Your task to perform on an android device: toggle location history Image 0: 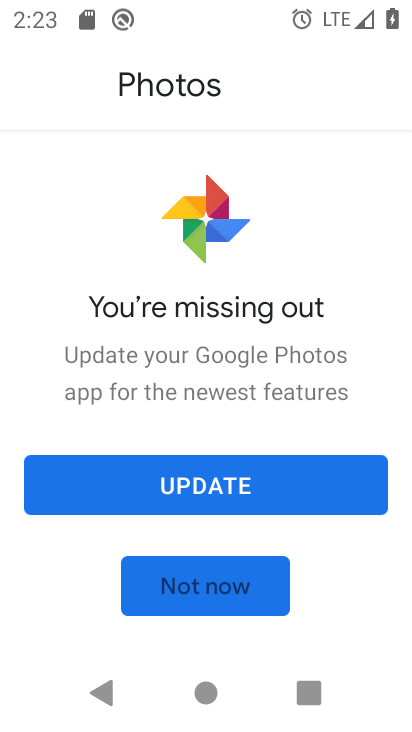
Step 0: click (241, 567)
Your task to perform on an android device: toggle location history Image 1: 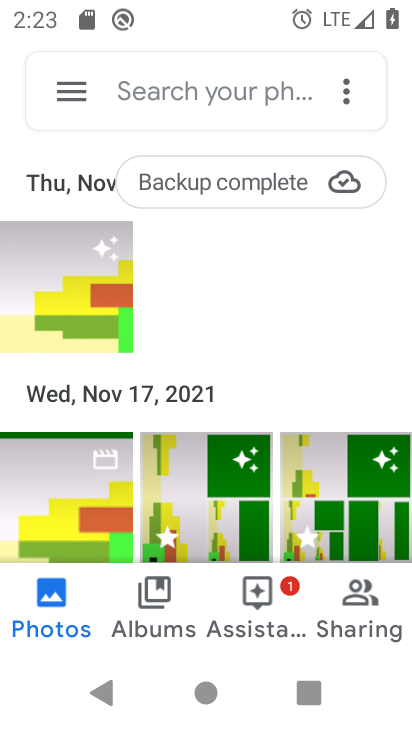
Step 1: press home button
Your task to perform on an android device: toggle location history Image 2: 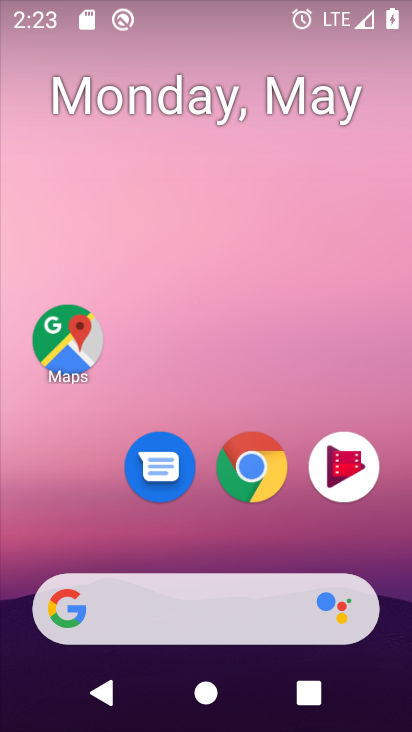
Step 2: drag from (183, 558) to (252, 178)
Your task to perform on an android device: toggle location history Image 3: 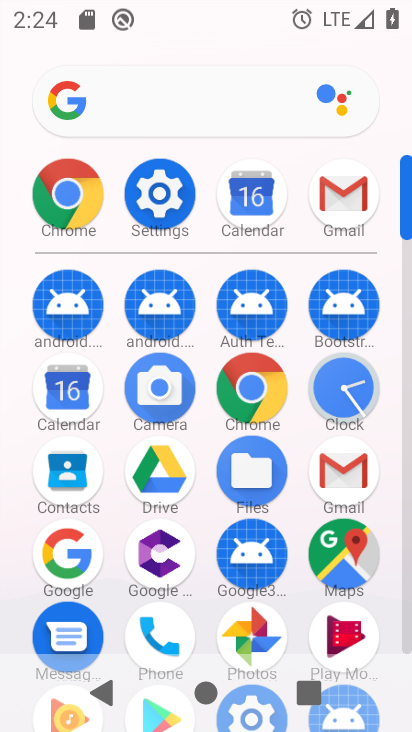
Step 3: click (158, 194)
Your task to perform on an android device: toggle location history Image 4: 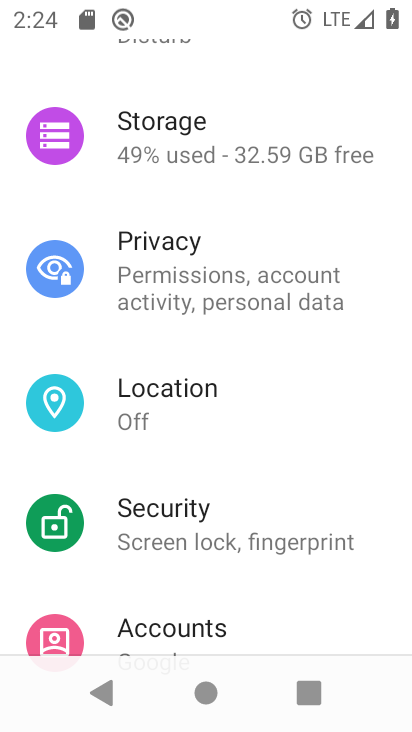
Step 4: click (202, 421)
Your task to perform on an android device: toggle location history Image 5: 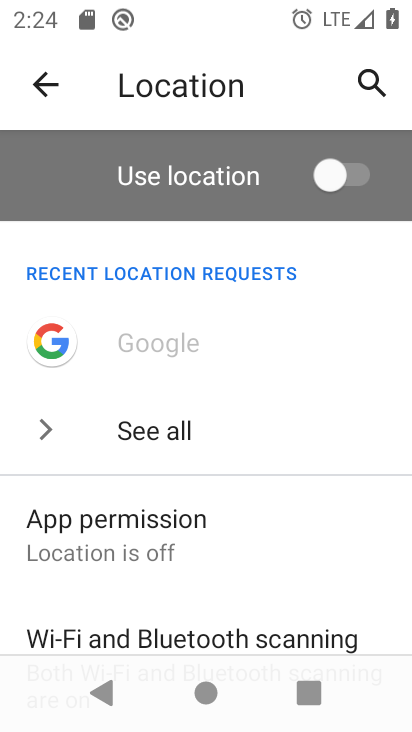
Step 5: drag from (234, 545) to (309, 266)
Your task to perform on an android device: toggle location history Image 6: 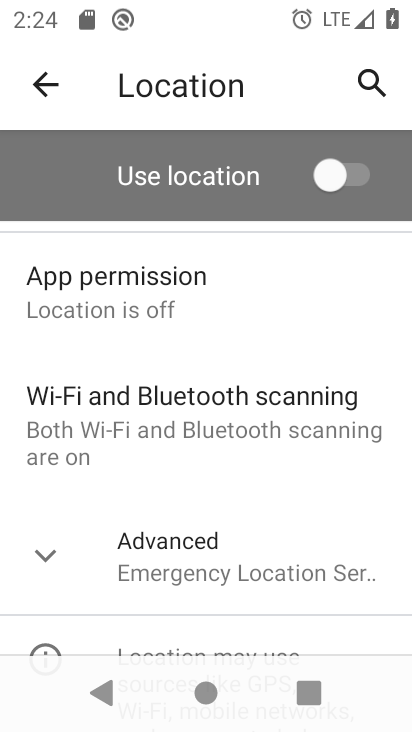
Step 6: drag from (218, 558) to (318, 203)
Your task to perform on an android device: toggle location history Image 7: 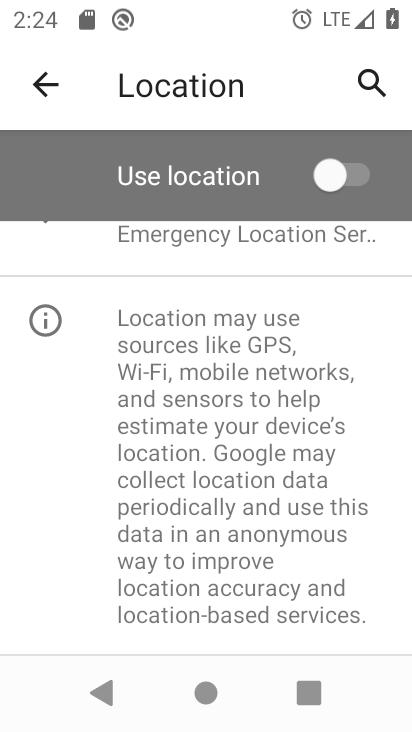
Step 7: click (209, 236)
Your task to perform on an android device: toggle location history Image 8: 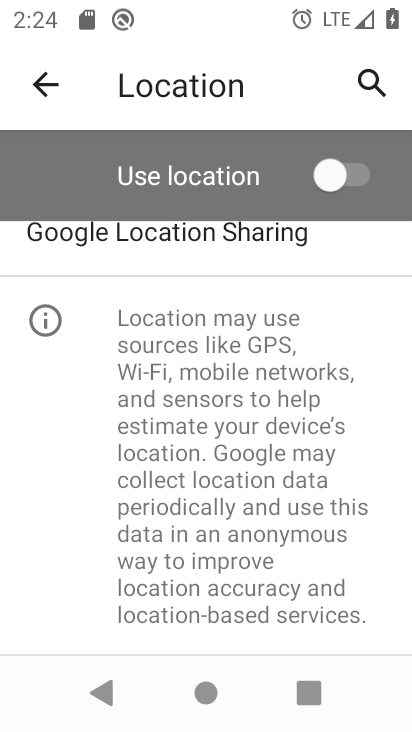
Step 8: drag from (174, 240) to (144, 519)
Your task to perform on an android device: toggle location history Image 9: 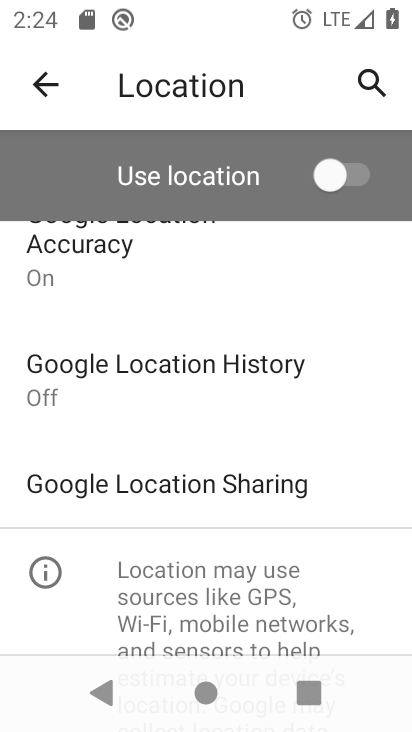
Step 9: click (158, 363)
Your task to perform on an android device: toggle location history Image 10: 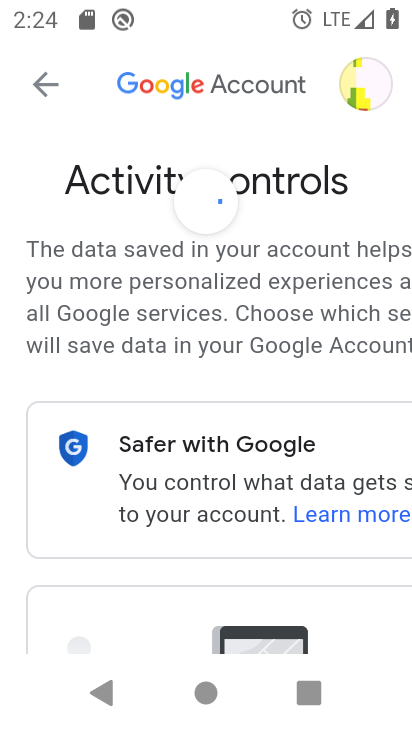
Step 10: drag from (268, 562) to (357, 167)
Your task to perform on an android device: toggle location history Image 11: 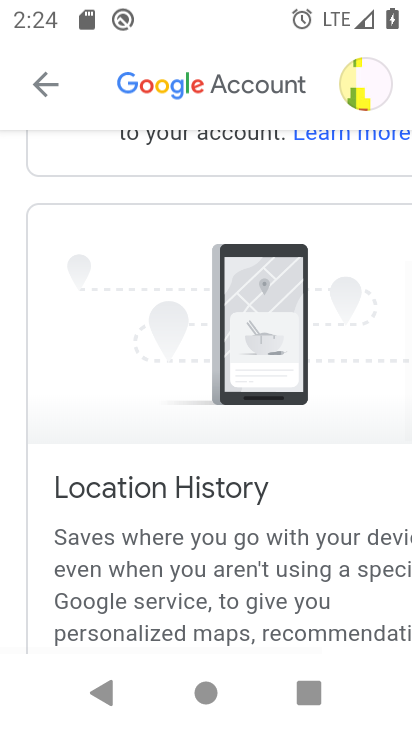
Step 11: drag from (315, 578) to (364, 186)
Your task to perform on an android device: toggle location history Image 12: 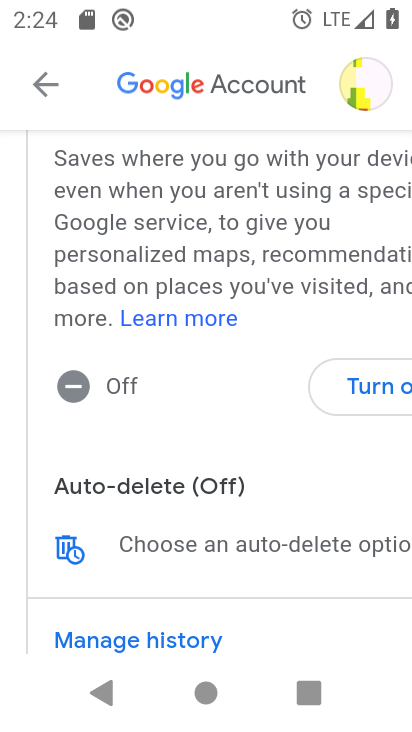
Step 12: click (362, 378)
Your task to perform on an android device: toggle location history Image 13: 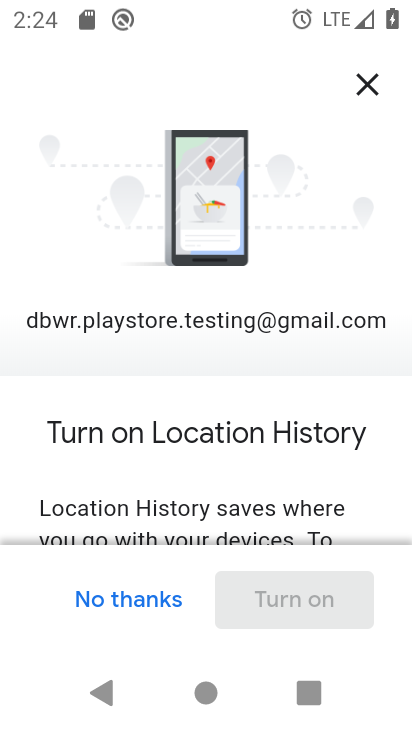
Step 13: task complete